Your task to perform on an android device: Open Google Chrome and click the shortcut for Amazon.com Image 0: 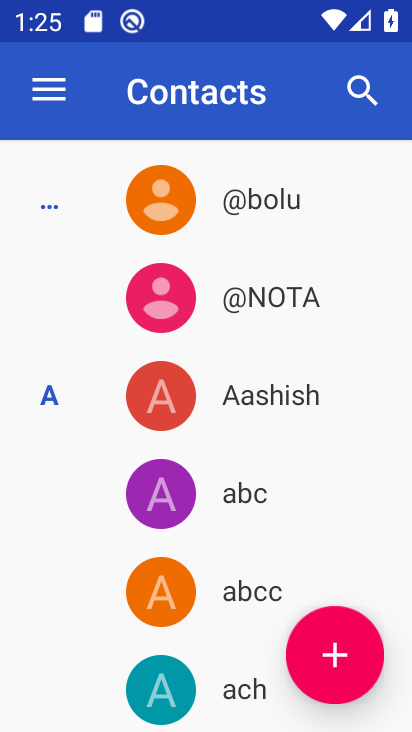
Step 0: press home button
Your task to perform on an android device: Open Google Chrome and click the shortcut for Amazon.com Image 1: 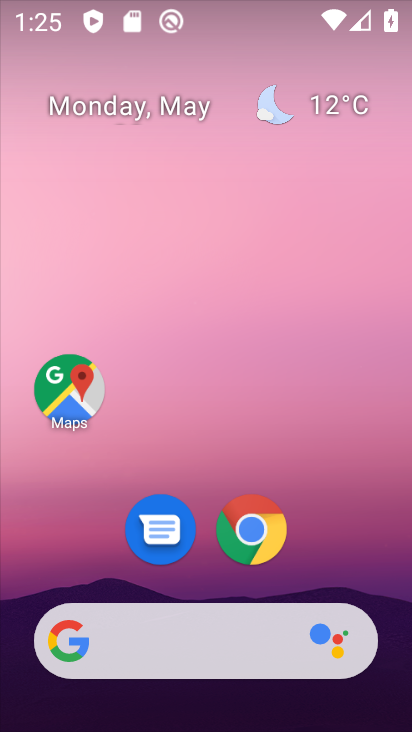
Step 1: click (256, 529)
Your task to perform on an android device: Open Google Chrome and click the shortcut for Amazon.com Image 2: 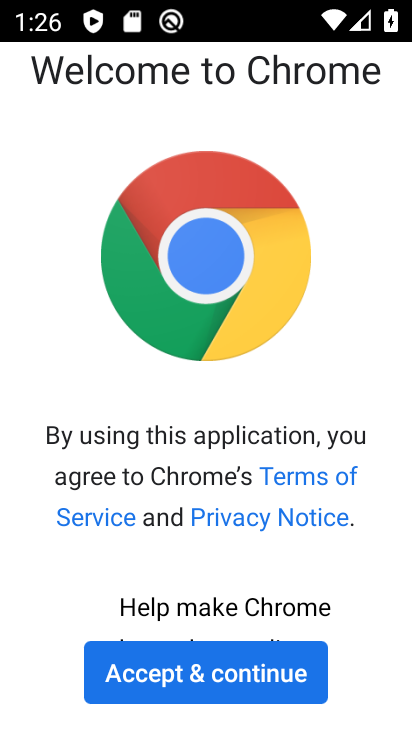
Step 2: click (204, 673)
Your task to perform on an android device: Open Google Chrome and click the shortcut for Amazon.com Image 3: 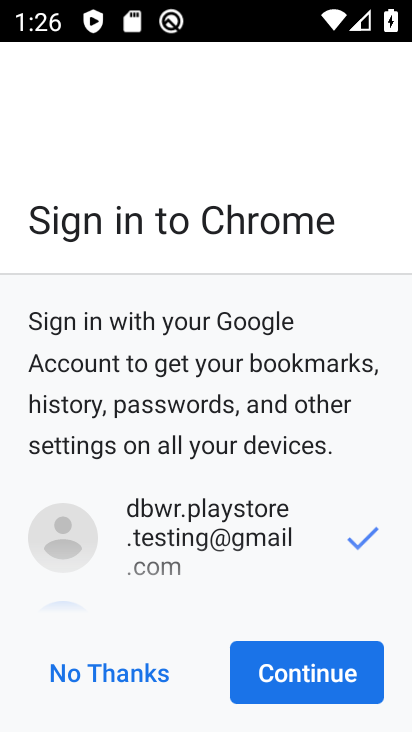
Step 3: click (319, 677)
Your task to perform on an android device: Open Google Chrome and click the shortcut for Amazon.com Image 4: 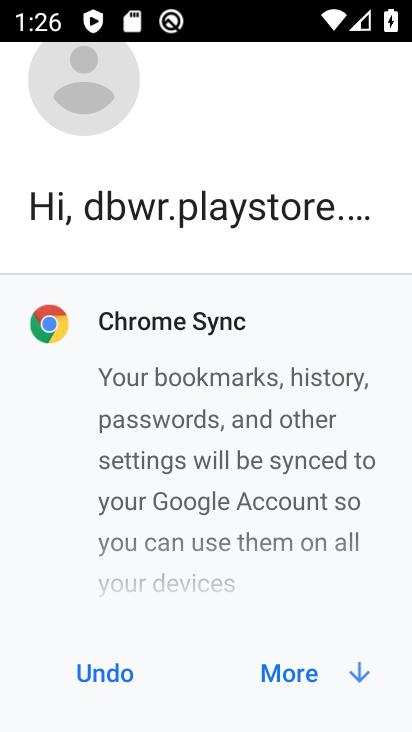
Step 4: click (314, 676)
Your task to perform on an android device: Open Google Chrome and click the shortcut for Amazon.com Image 5: 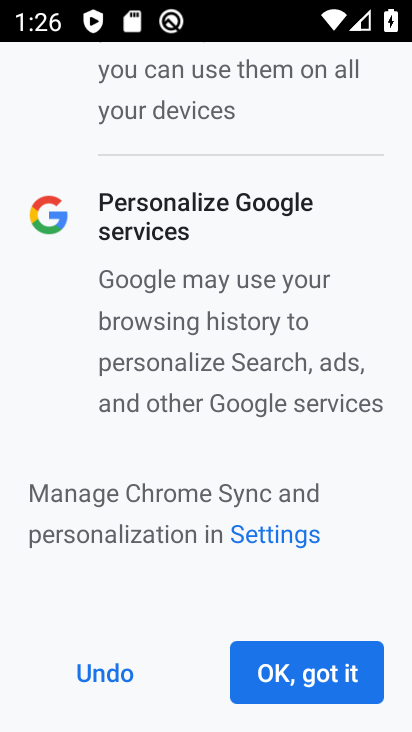
Step 5: click (314, 676)
Your task to perform on an android device: Open Google Chrome and click the shortcut for Amazon.com Image 6: 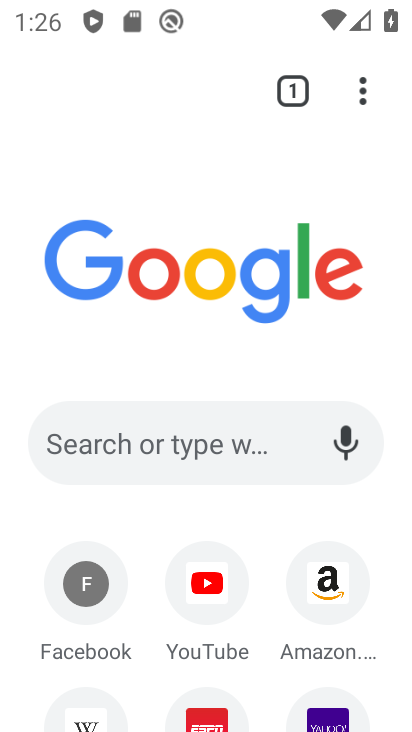
Step 6: click (322, 579)
Your task to perform on an android device: Open Google Chrome and click the shortcut for Amazon.com Image 7: 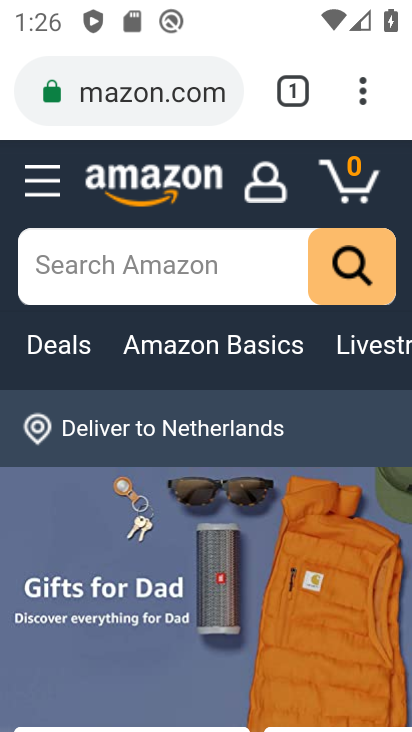
Step 7: task complete